Your task to perform on an android device: toggle location history Image 0: 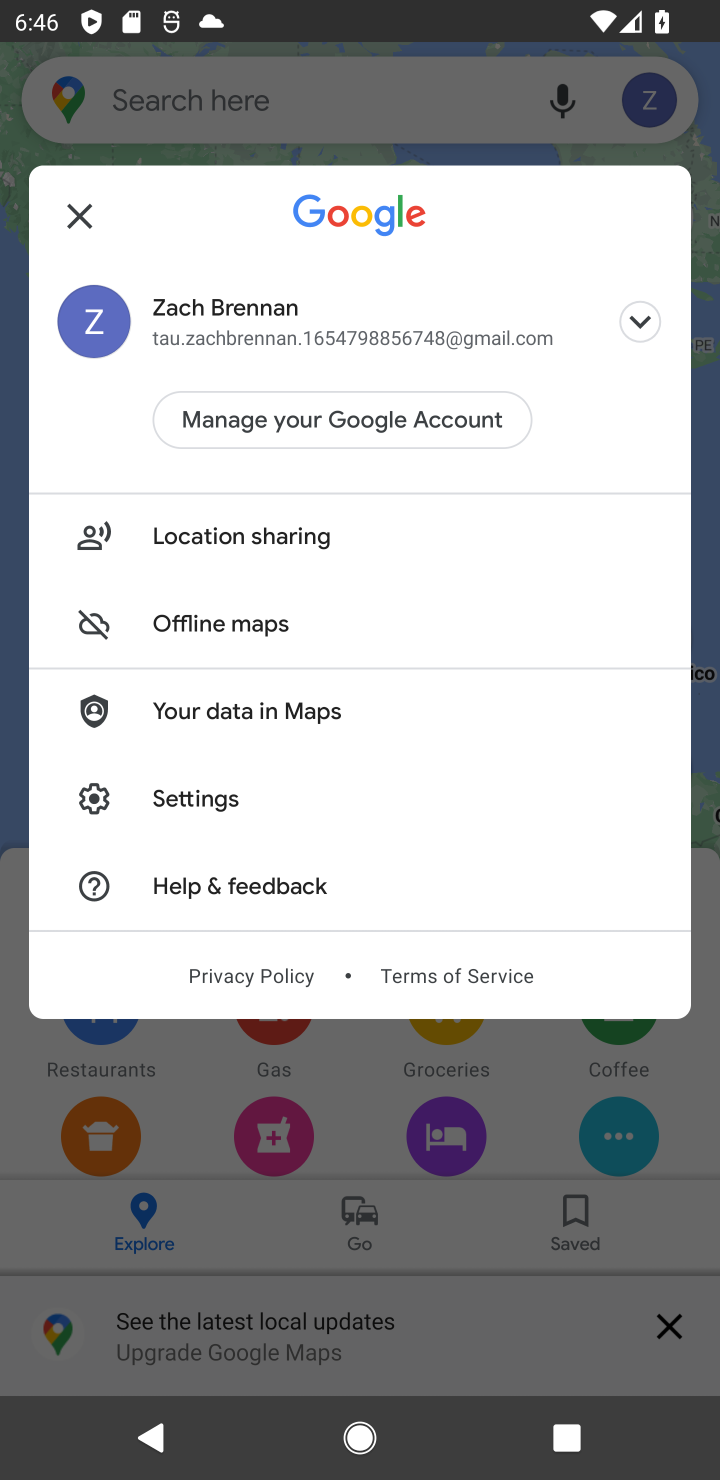
Step 0: press home button
Your task to perform on an android device: toggle location history Image 1: 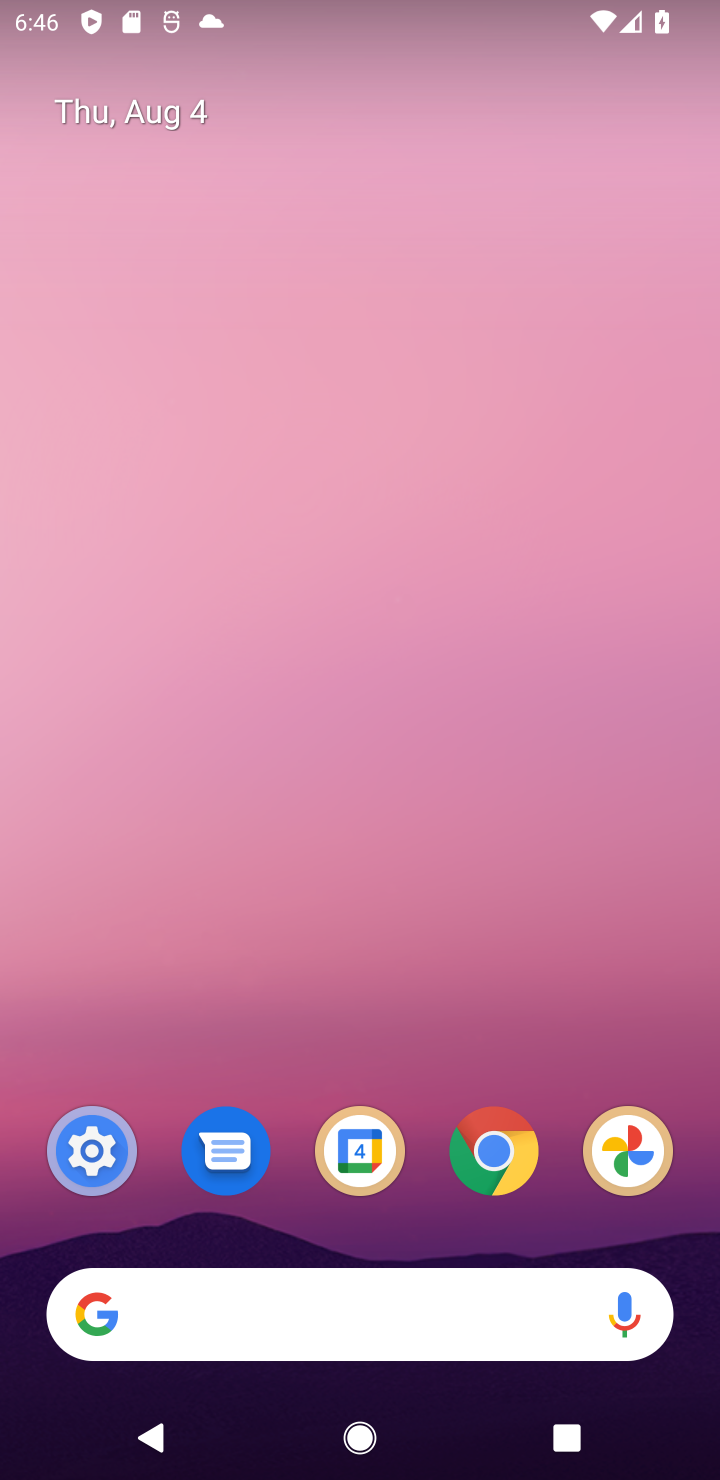
Step 1: drag from (354, 1220) to (267, 8)
Your task to perform on an android device: toggle location history Image 2: 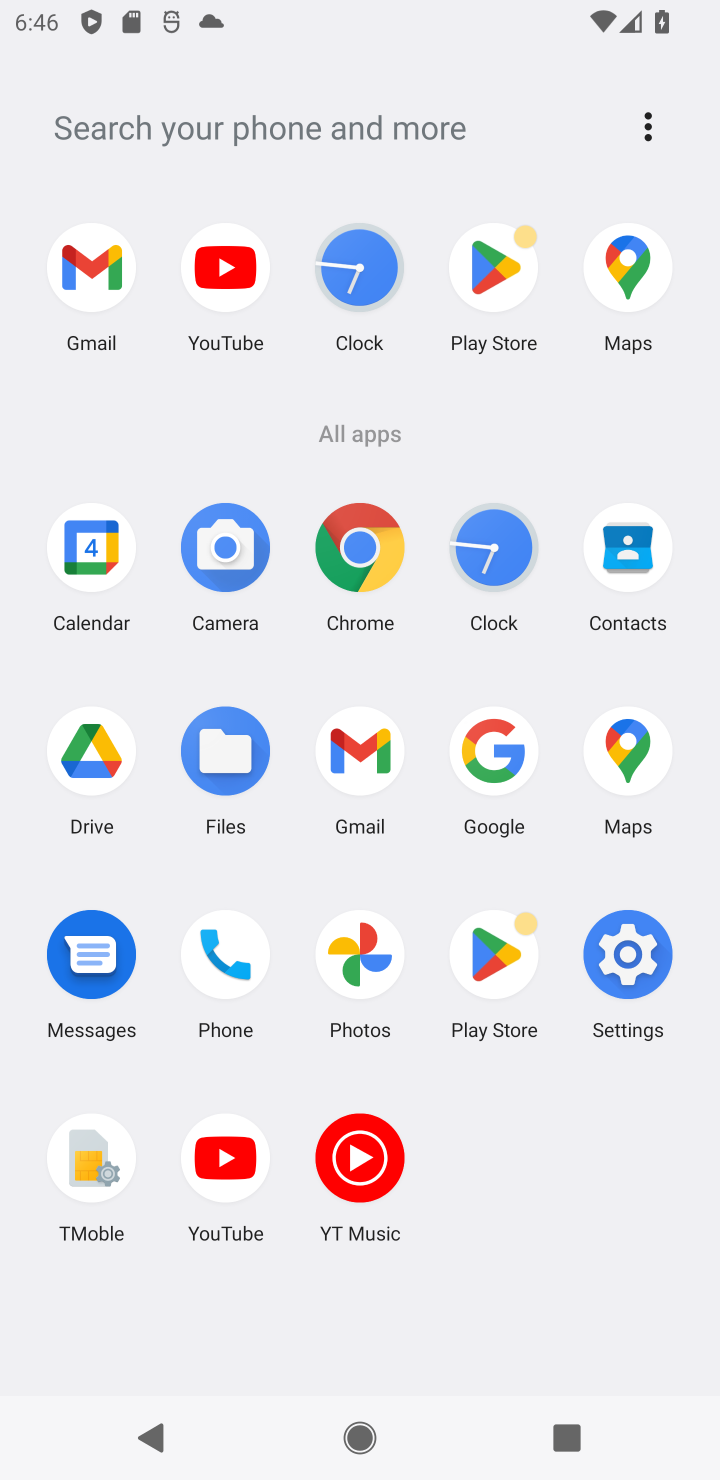
Step 2: click (634, 998)
Your task to perform on an android device: toggle location history Image 3: 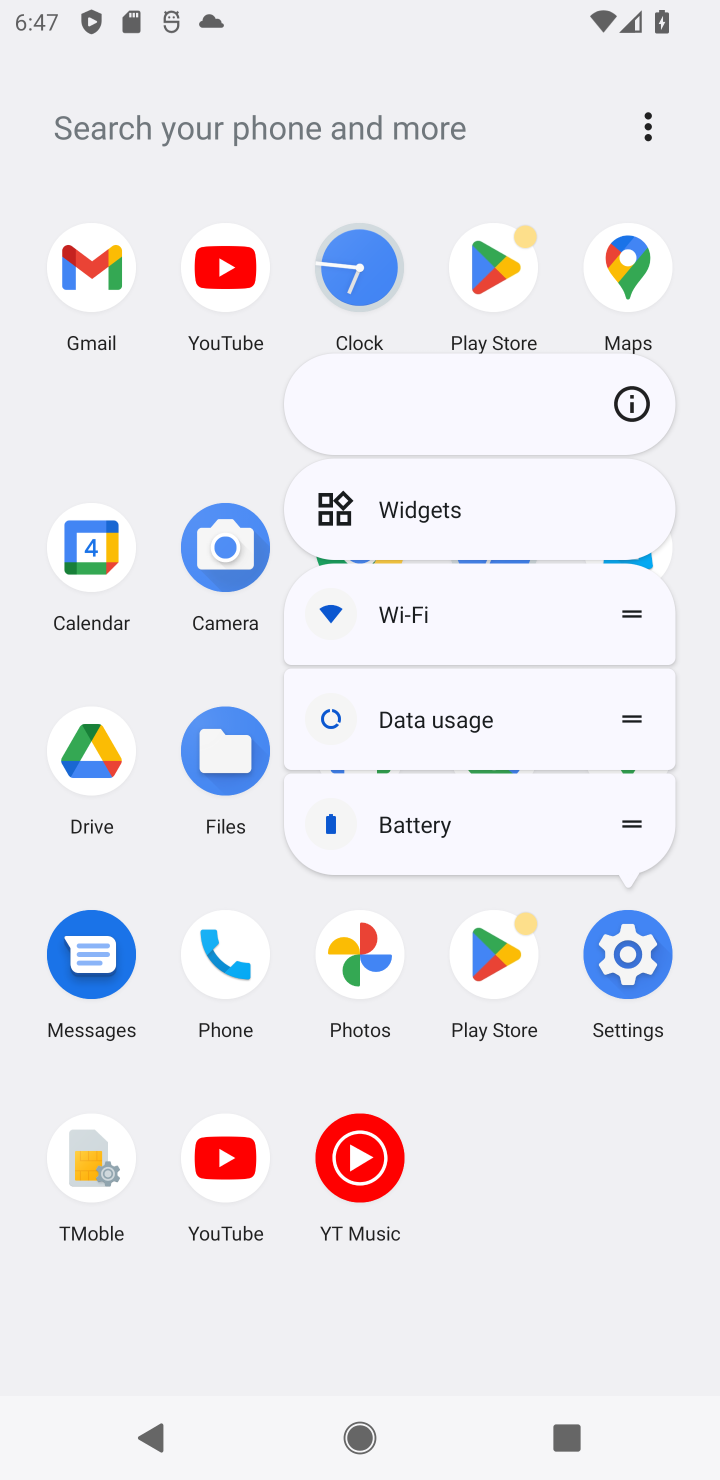
Step 3: click (639, 1002)
Your task to perform on an android device: toggle location history Image 4: 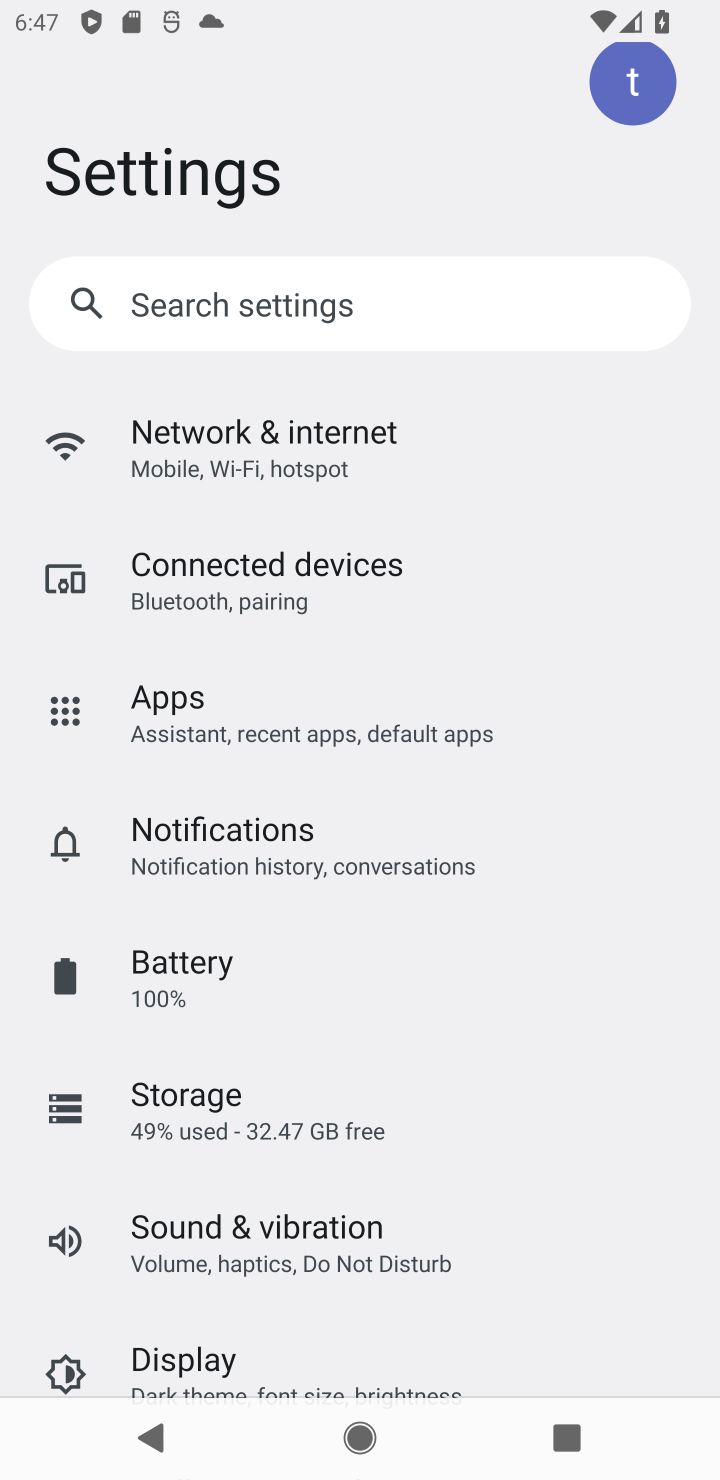
Step 4: drag from (229, 1293) to (173, 610)
Your task to perform on an android device: toggle location history Image 5: 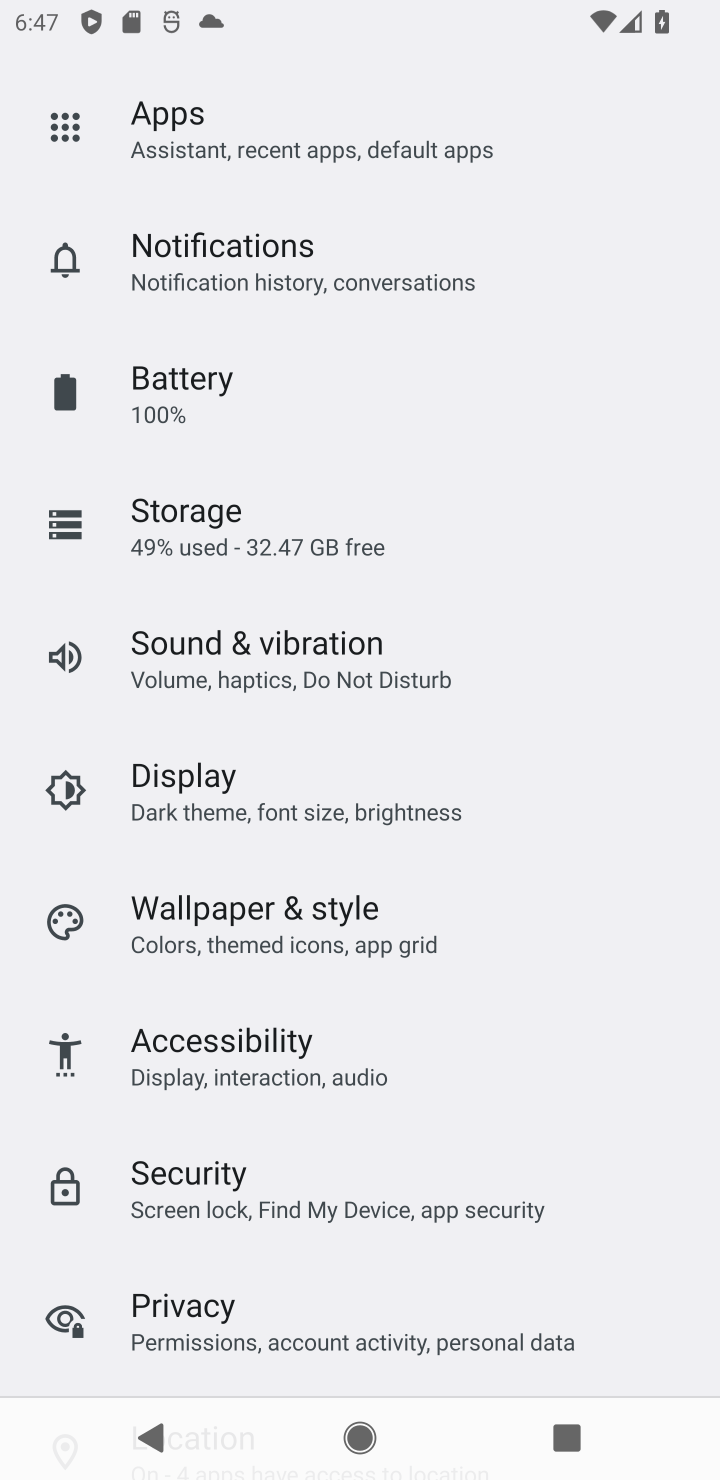
Step 5: drag from (264, 1207) to (287, 774)
Your task to perform on an android device: toggle location history Image 6: 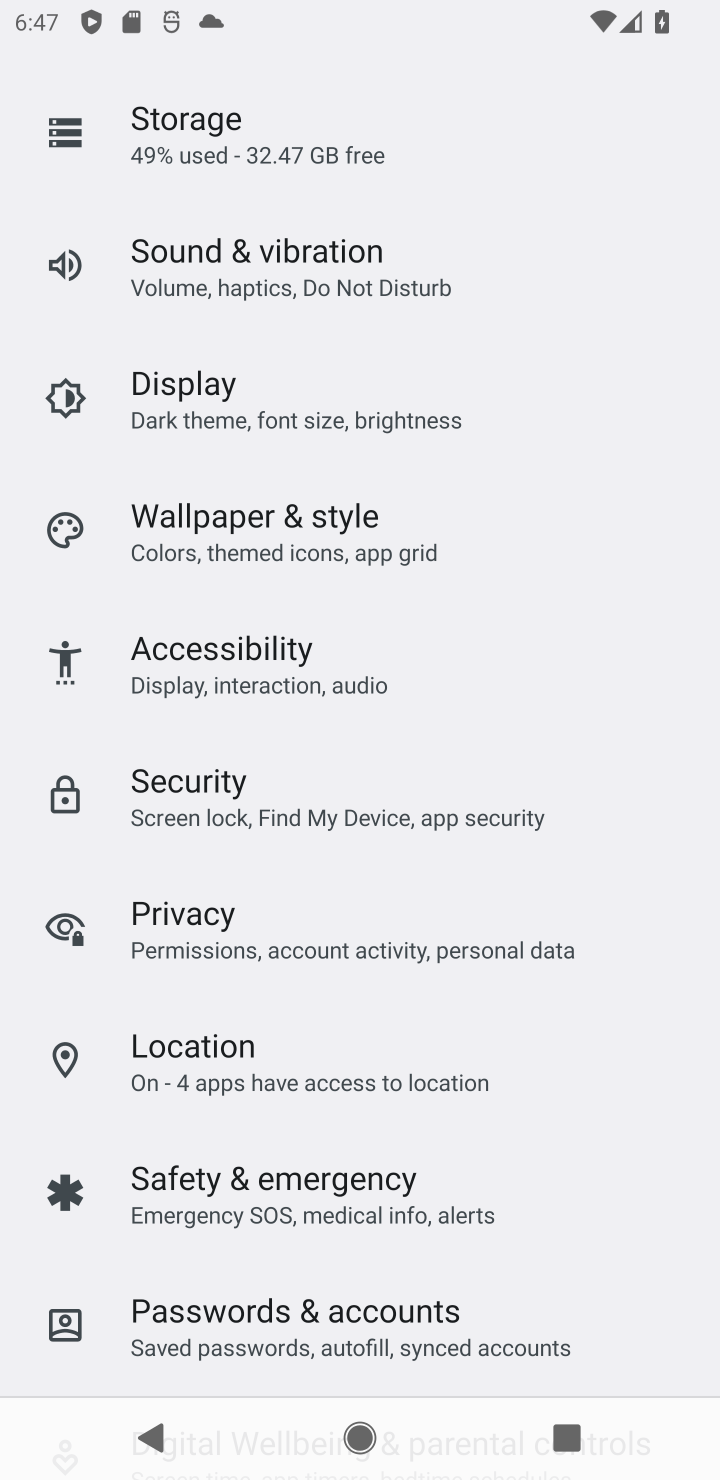
Step 6: click (293, 1061)
Your task to perform on an android device: toggle location history Image 7: 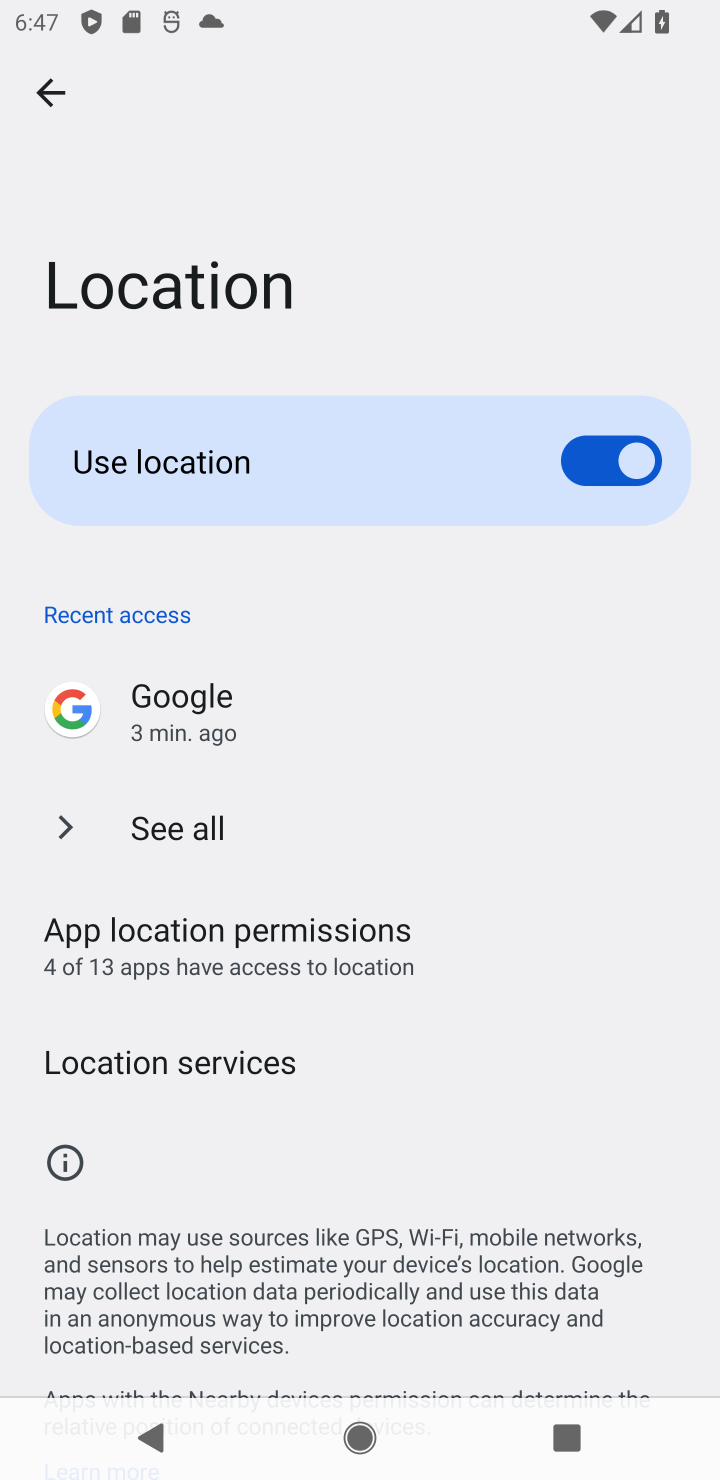
Step 7: click (224, 1069)
Your task to perform on an android device: toggle location history Image 8: 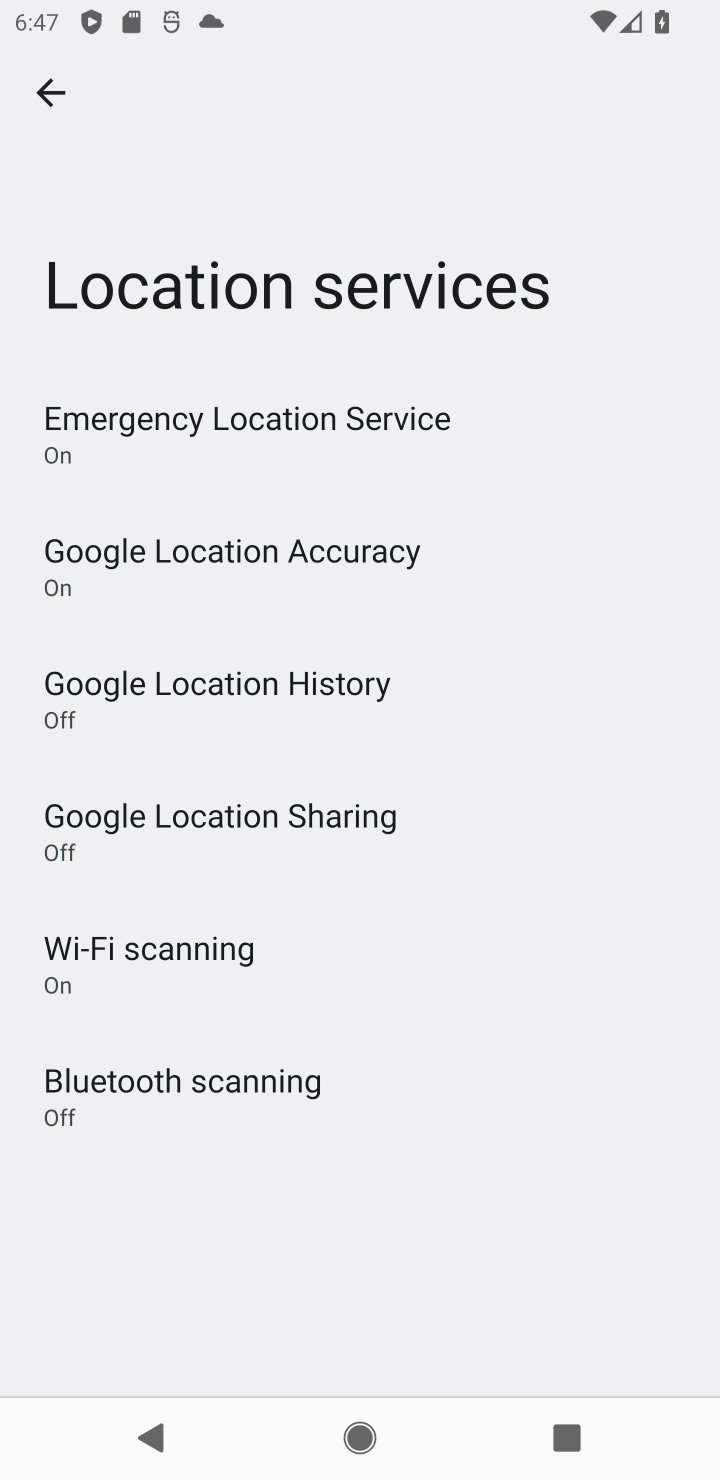
Step 8: click (341, 678)
Your task to perform on an android device: toggle location history Image 9: 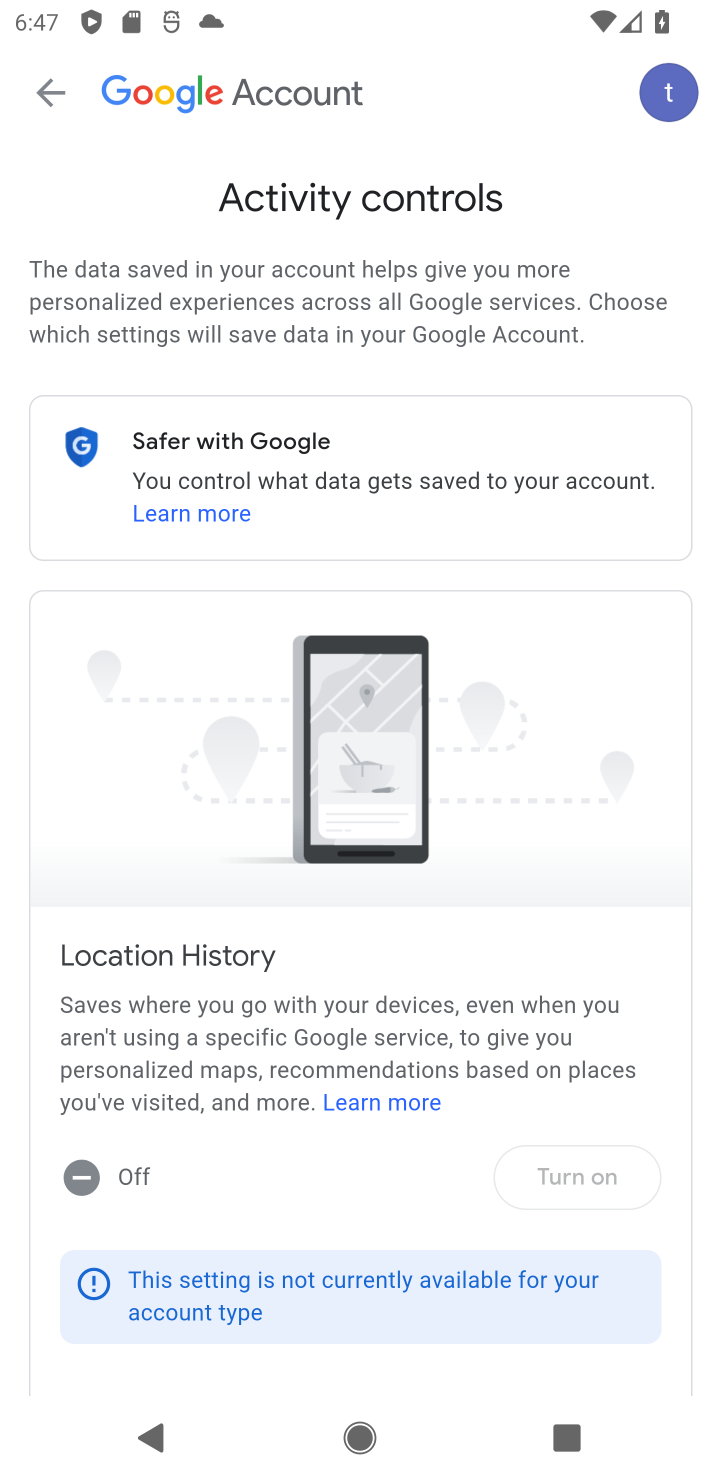
Step 9: task complete